Your task to perform on an android device: change alarm snooze length Image 0: 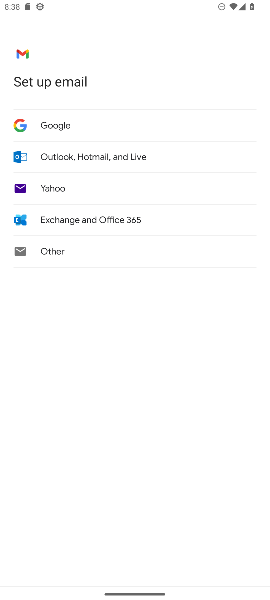
Step 0: press home button
Your task to perform on an android device: change alarm snooze length Image 1: 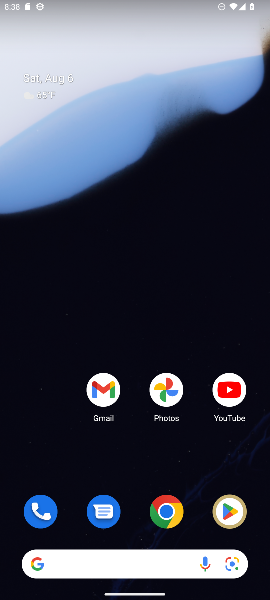
Step 1: drag from (7, 482) to (69, 7)
Your task to perform on an android device: change alarm snooze length Image 2: 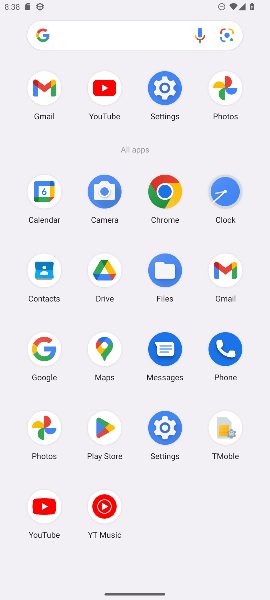
Step 2: click (226, 187)
Your task to perform on an android device: change alarm snooze length Image 3: 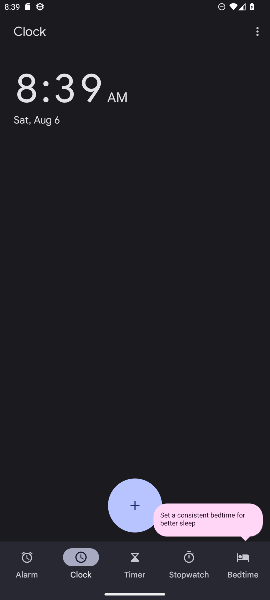
Step 3: click (26, 569)
Your task to perform on an android device: change alarm snooze length Image 4: 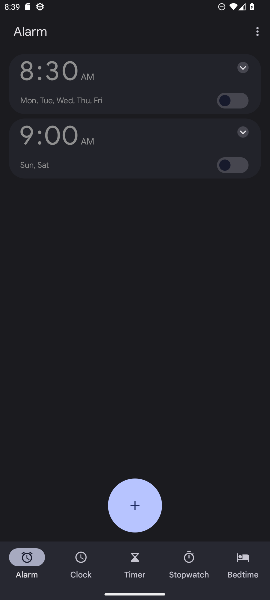
Step 4: click (254, 23)
Your task to perform on an android device: change alarm snooze length Image 5: 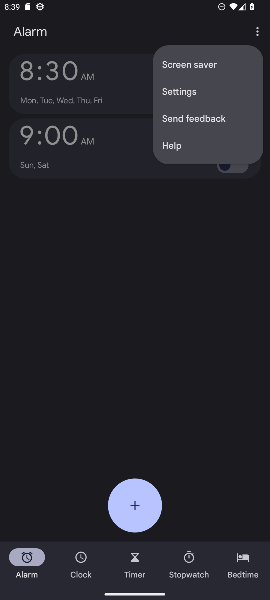
Step 5: click (183, 93)
Your task to perform on an android device: change alarm snooze length Image 6: 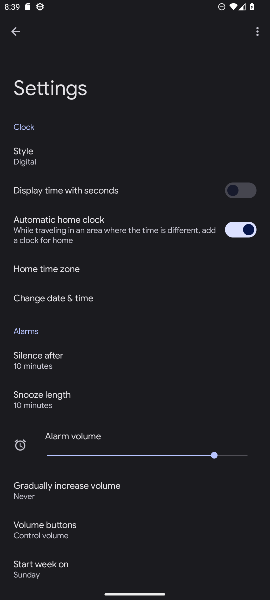
Step 6: drag from (83, 522) to (88, 438)
Your task to perform on an android device: change alarm snooze length Image 7: 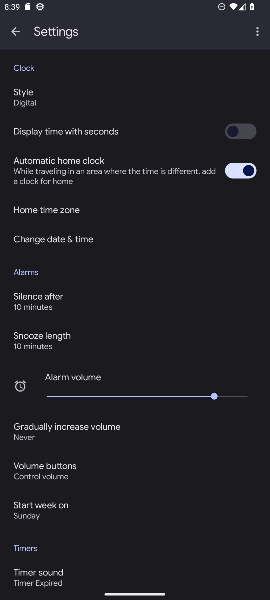
Step 7: click (69, 347)
Your task to perform on an android device: change alarm snooze length Image 8: 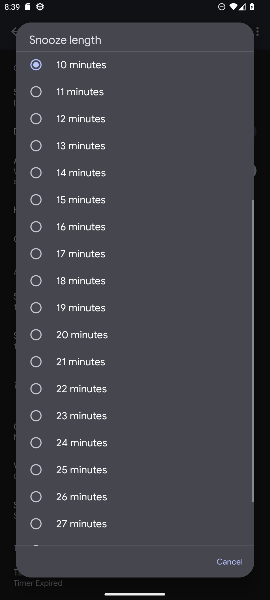
Step 8: click (69, 347)
Your task to perform on an android device: change alarm snooze length Image 9: 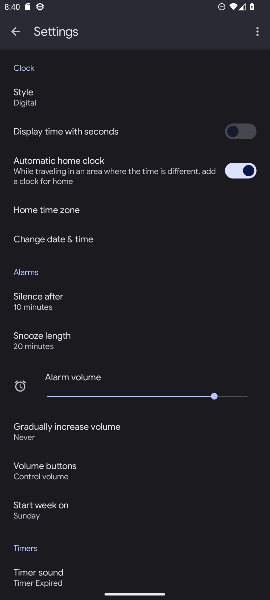
Step 9: task complete